Your task to perform on an android device: change alarm snooze length Image 0: 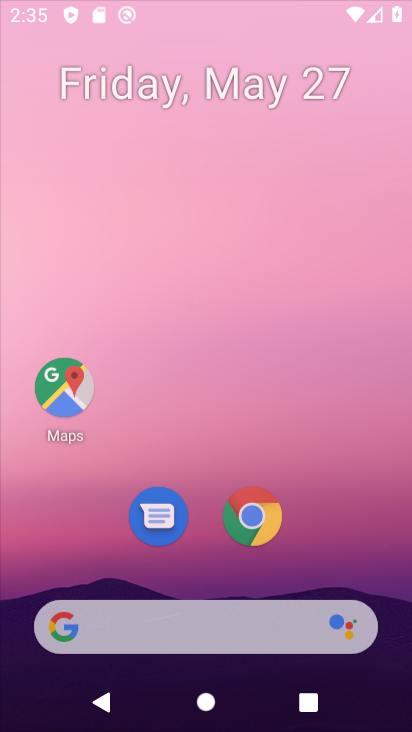
Step 0: press home button
Your task to perform on an android device: change alarm snooze length Image 1: 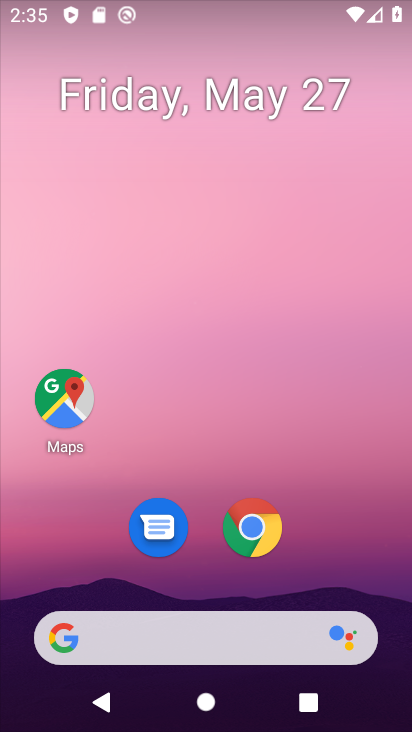
Step 1: drag from (226, 589) to (307, 58)
Your task to perform on an android device: change alarm snooze length Image 2: 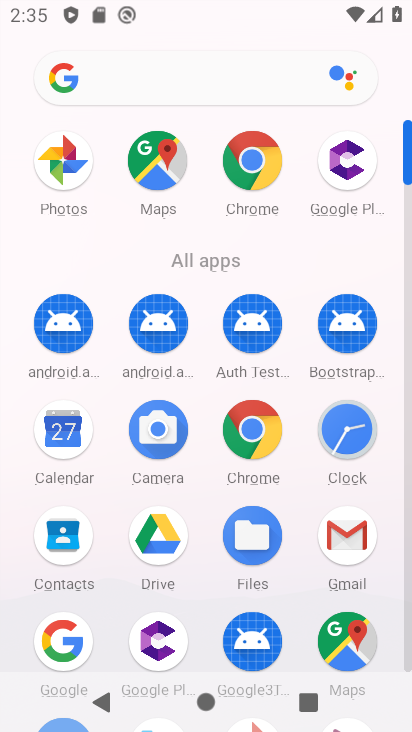
Step 2: click (339, 439)
Your task to perform on an android device: change alarm snooze length Image 3: 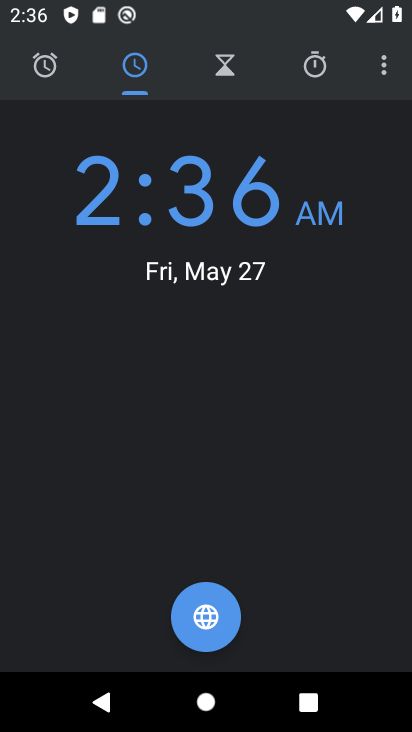
Step 3: click (380, 71)
Your task to perform on an android device: change alarm snooze length Image 4: 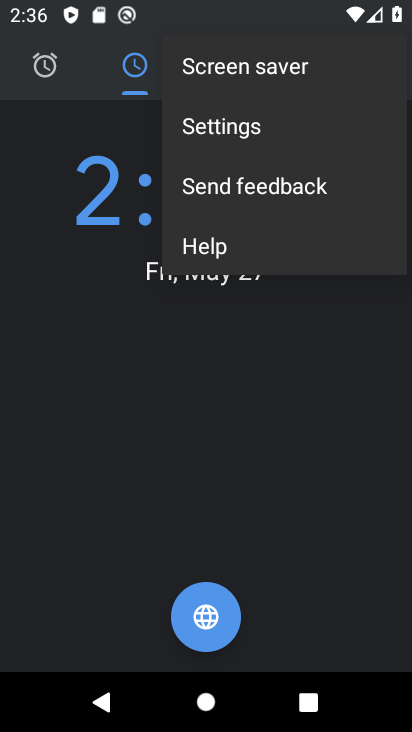
Step 4: click (275, 111)
Your task to perform on an android device: change alarm snooze length Image 5: 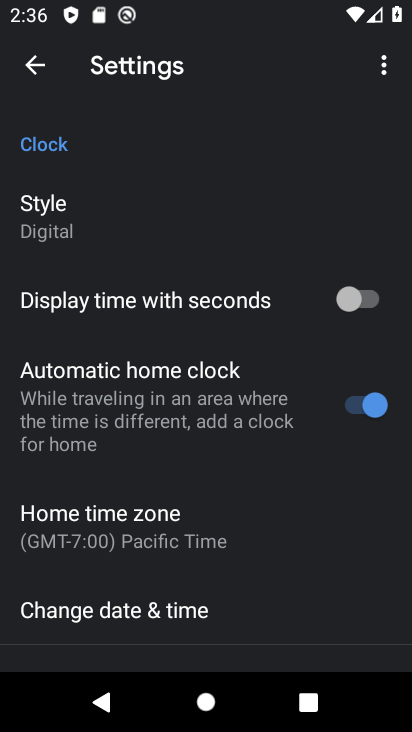
Step 5: drag from (96, 577) to (136, 215)
Your task to perform on an android device: change alarm snooze length Image 6: 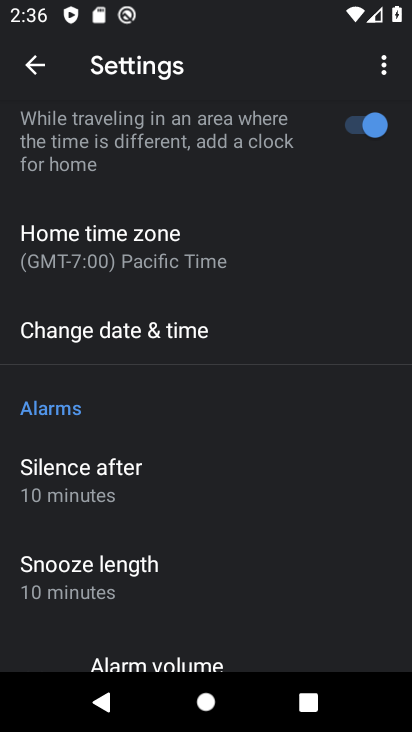
Step 6: click (92, 579)
Your task to perform on an android device: change alarm snooze length Image 7: 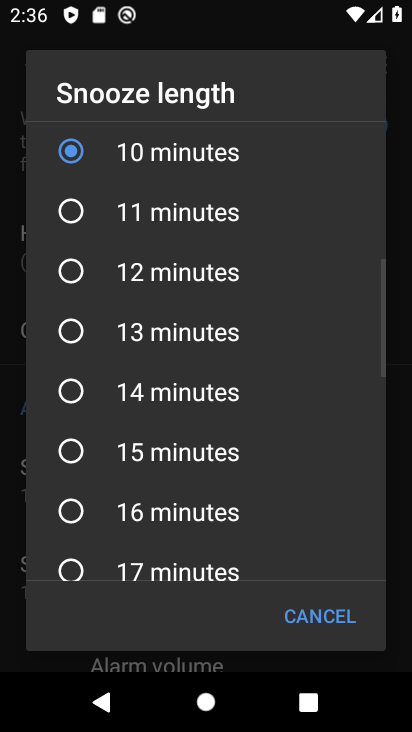
Step 7: click (89, 211)
Your task to perform on an android device: change alarm snooze length Image 8: 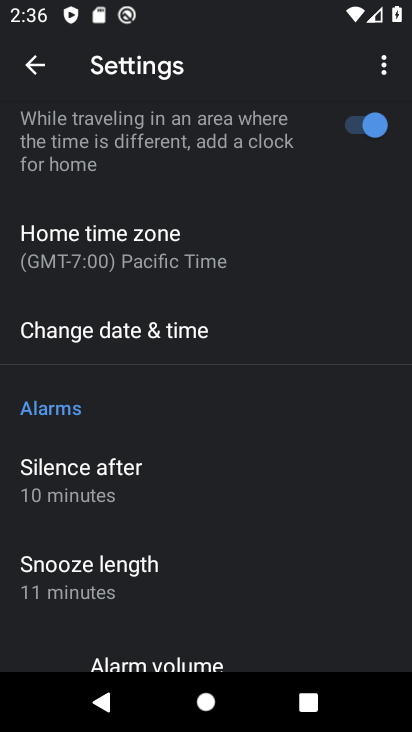
Step 8: task complete